Your task to perform on an android device: Open Yahoo.com Image 0: 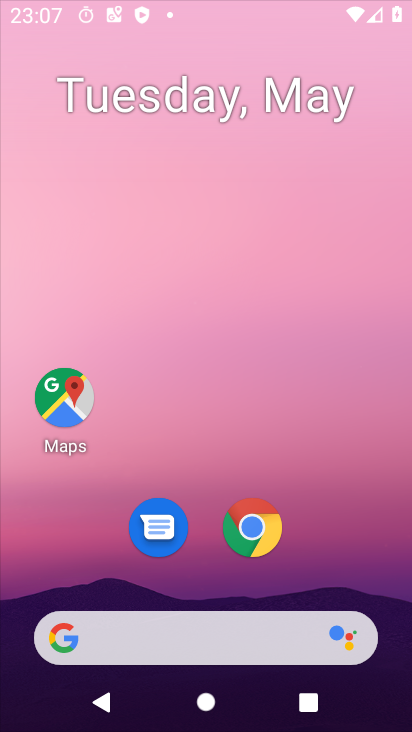
Step 0: click (267, 13)
Your task to perform on an android device: Open Yahoo.com Image 1: 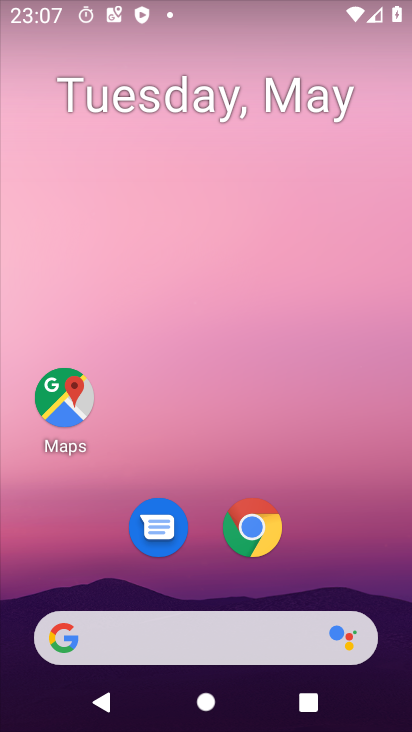
Step 1: drag from (186, 577) to (208, 21)
Your task to perform on an android device: Open Yahoo.com Image 2: 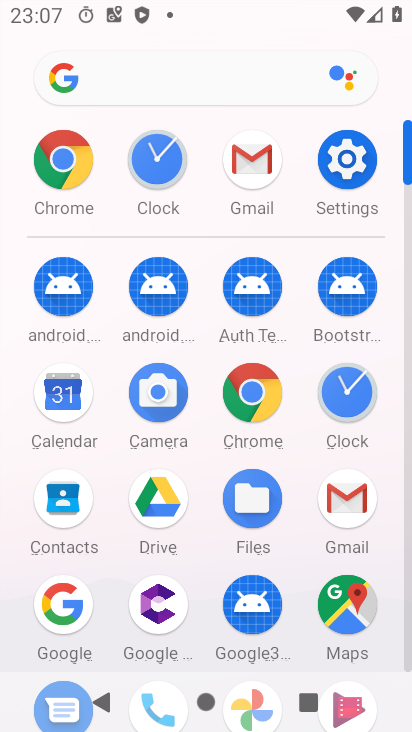
Step 2: click (179, 85)
Your task to perform on an android device: Open Yahoo.com Image 3: 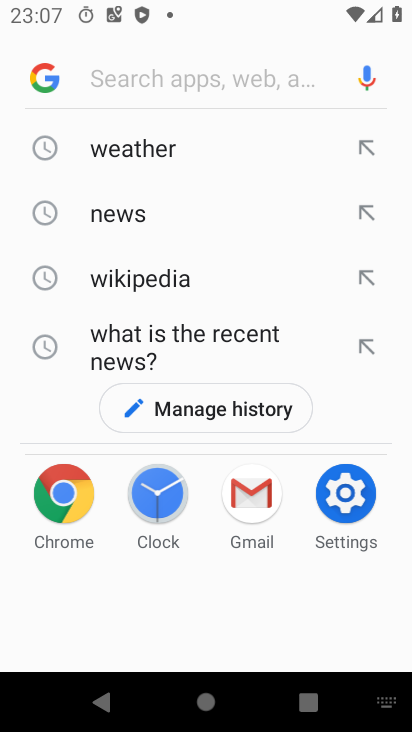
Step 3: type "Yahoo.com"
Your task to perform on an android device: Open Yahoo.com Image 4: 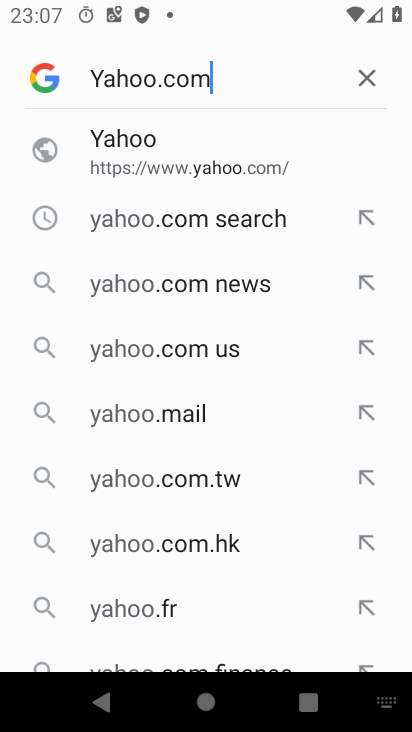
Step 4: type ""
Your task to perform on an android device: Open Yahoo.com Image 5: 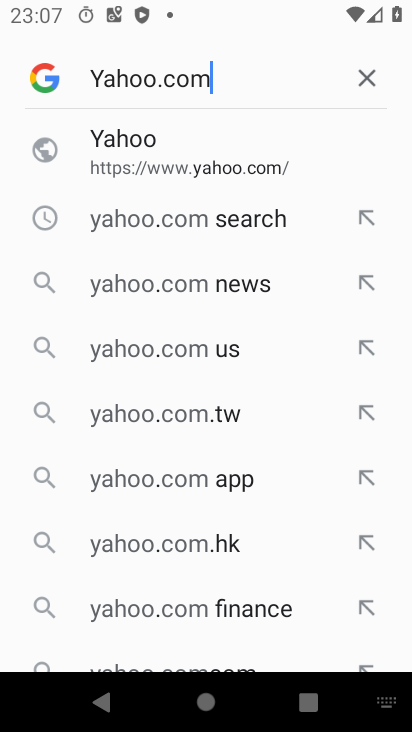
Step 5: click (143, 142)
Your task to perform on an android device: Open Yahoo.com Image 6: 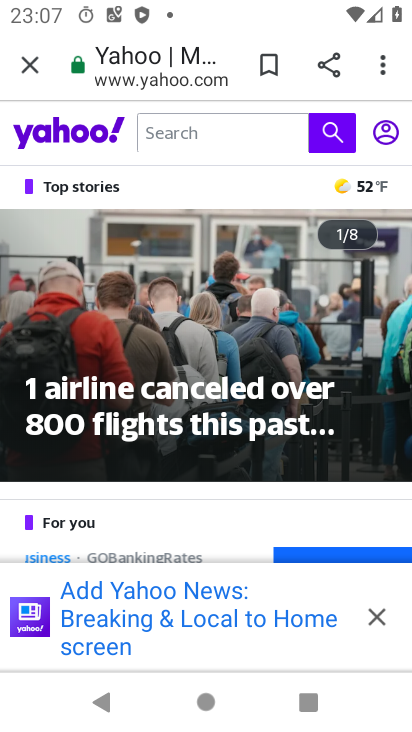
Step 6: task complete